Your task to perform on an android device: toggle notification dots Image 0: 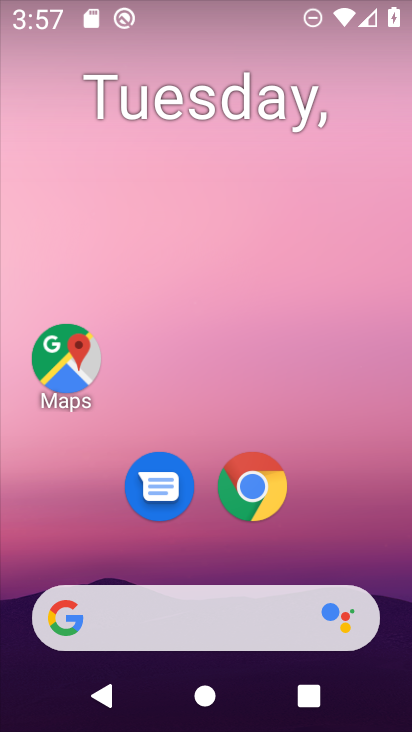
Step 0: drag from (215, 556) to (259, 53)
Your task to perform on an android device: toggle notification dots Image 1: 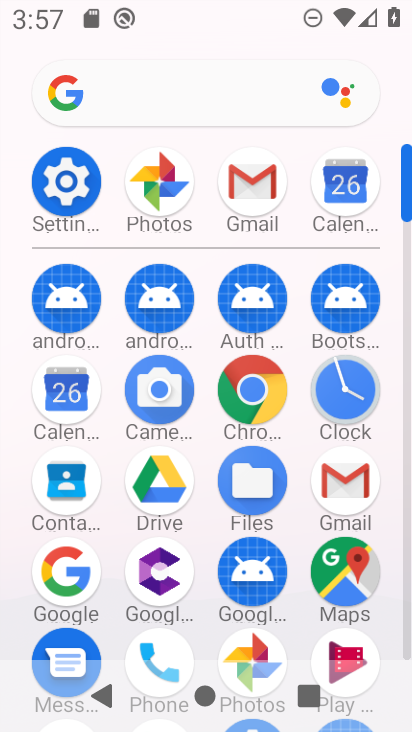
Step 1: click (61, 183)
Your task to perform on an android device: toggle notification dots Image 2: 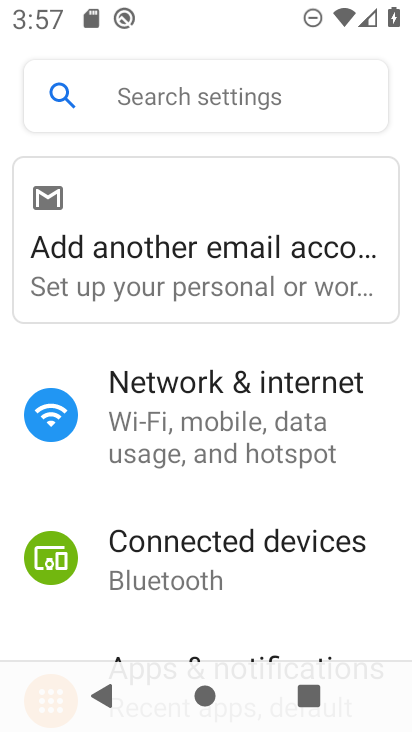
Step 2: drag from (208, 514) to (299, 89)
Your task to perform on an android device: toggle notification dots Image 3: 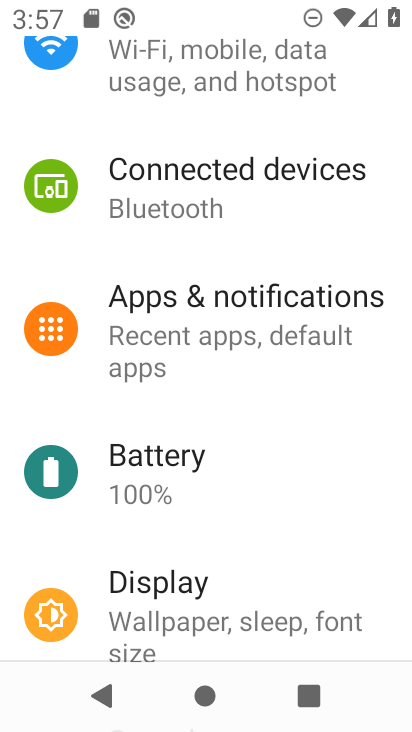
Step 3: click (234, 323)
Your task to perform on an android device: toggle notification dots Image 4: 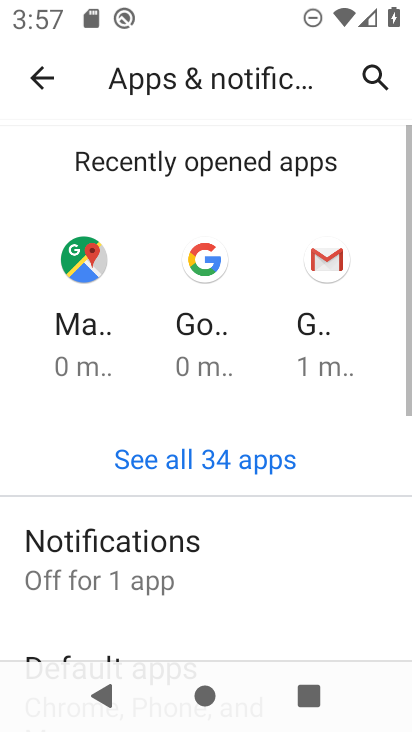
Step 4: drag from (168, 616) to (216, 72)
Your task to perform on an android device: toggle notification dots Image 5: 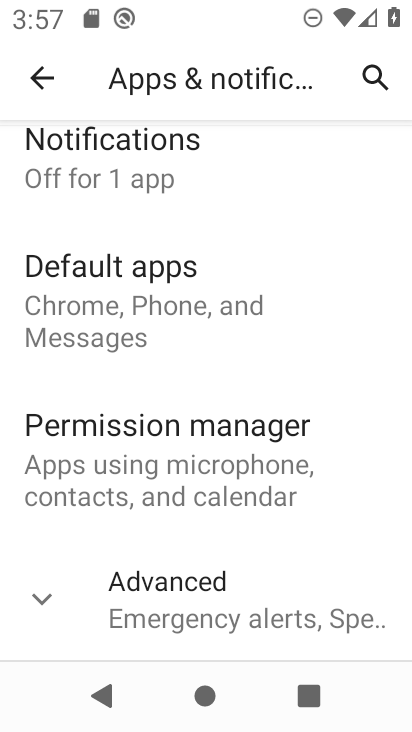
Step 5: click (140, 156)
Your task to perform on an android device: toggle notification dots Image 6: 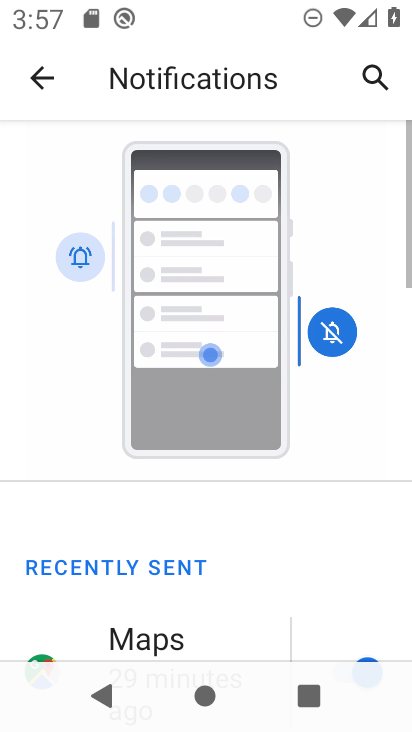
Step 6: drag from (141, 596) to (247, 113)
Your task to perform on an android device: toggle notification dots Image 7: 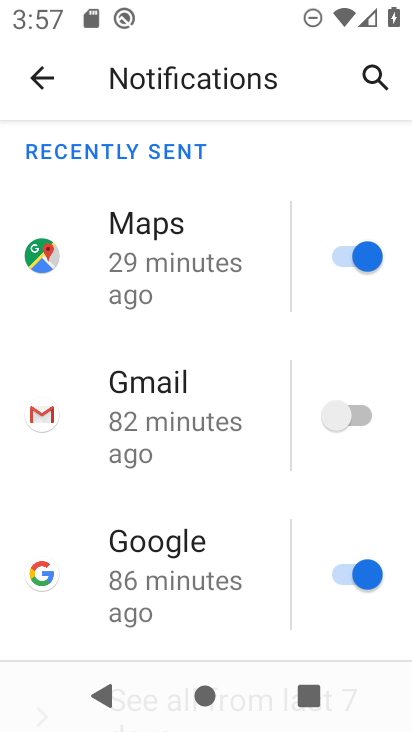
Step 7: drag from (146, 597) to (250, 81)
Your task to perform on an android device: toggle notification dots Image 8: 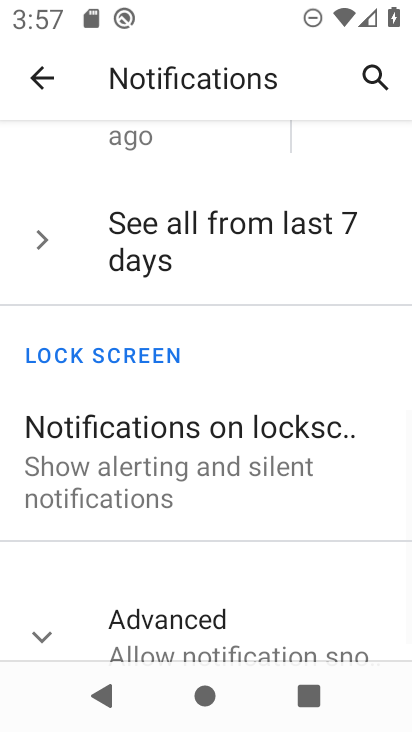
Step 8: click (189, 618)
Your task to perform on an android device: toggle notification dots Image 9: 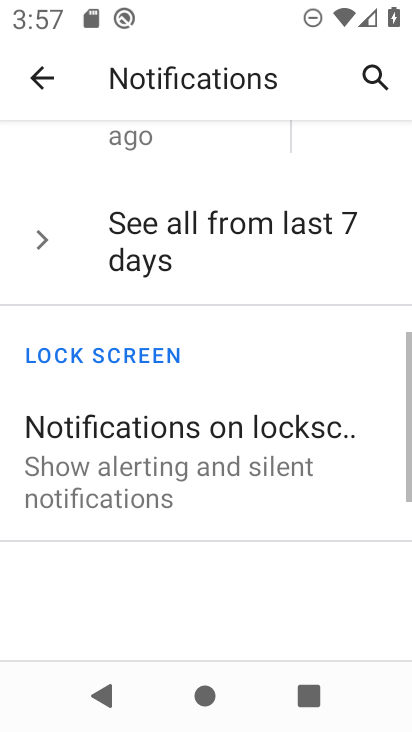
Step 9: drag from (199, 605) to (264, 69)
Your task to perform on an android device: toggle notification dots Image 10: 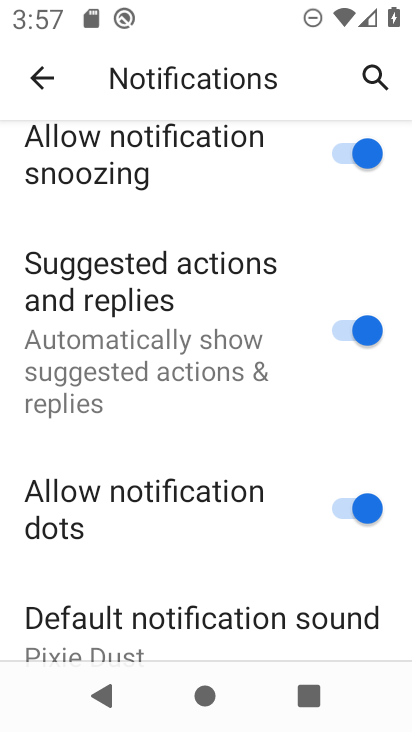
Step 10: click (359, 504)
Your task to perform on an android device: toggle notification dots Image 11: 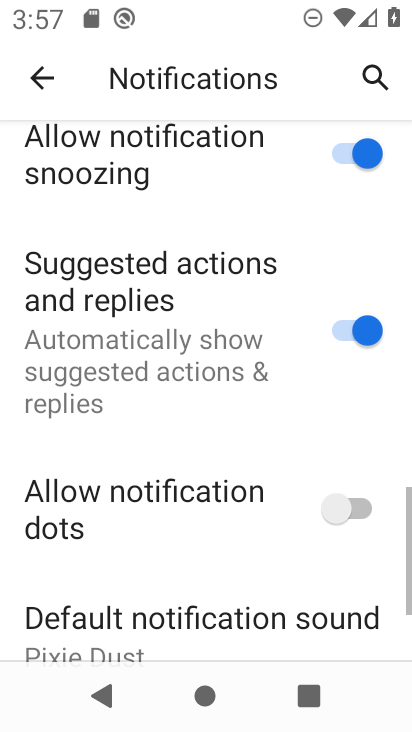
Step 11: task complete